Your task to perform on an android device: turn off wifi Image 0: 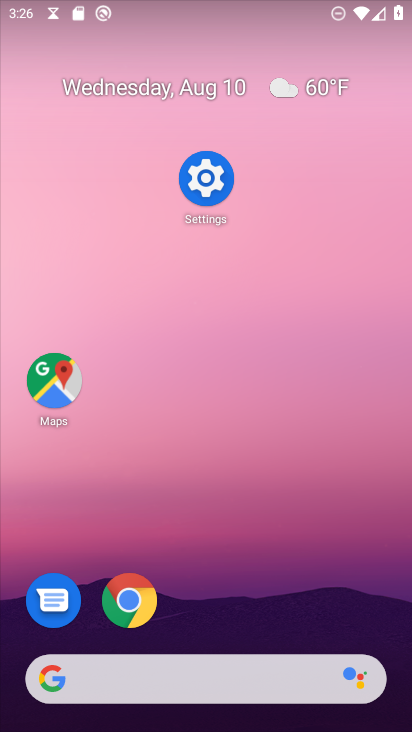
Step 0: press home button
Your task to perform on an android device: turn off wifi Image 1: 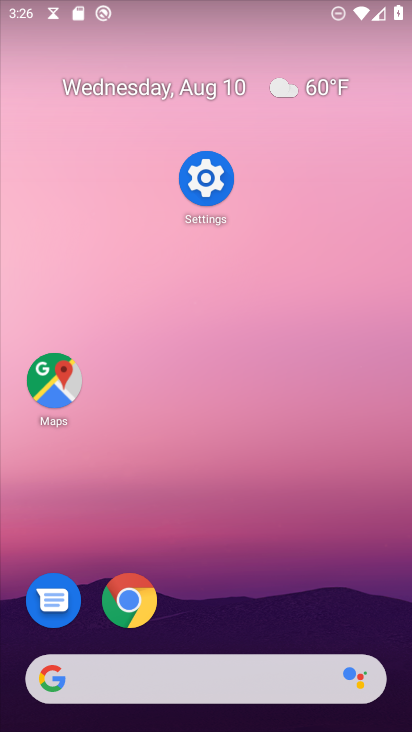
Step 1: drag from (213, 6) to (220, 459)
Your task to perform on an android device: turn off wifi Image 2: 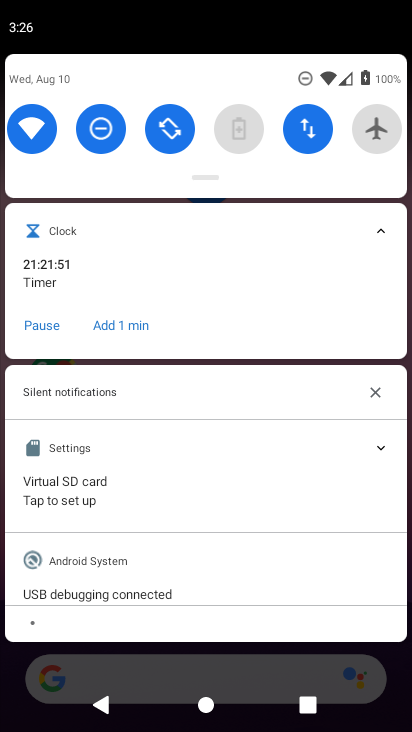
Step 2: click (22, 130)
Your task to perform on an android device: turn off wifi Image 3: 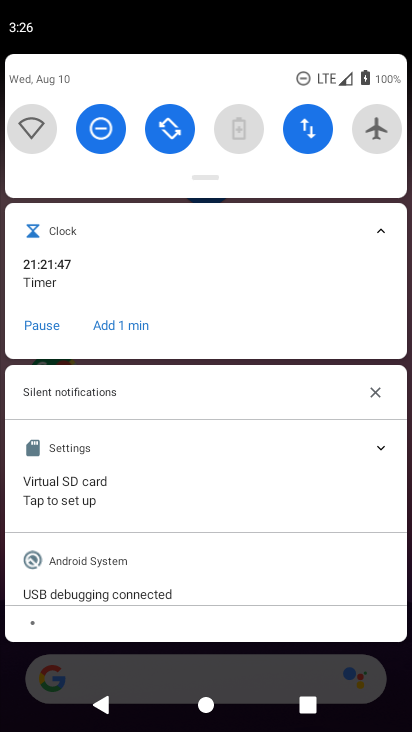
Step 3: task complete